Your task to perform on an android device: Go to sound settings Image 0: 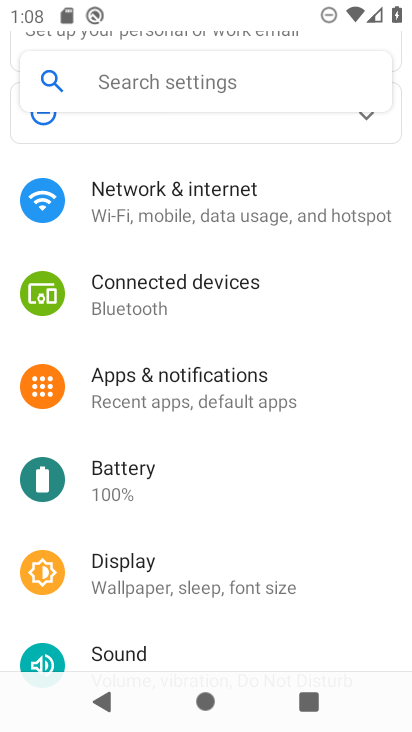
Step 0: click (164, 648)
Your task to perform on an android device: Go to sound settings Image 1: 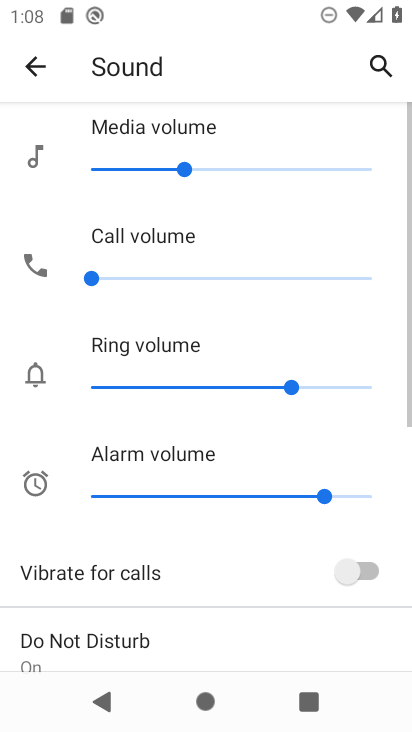
Step 1: task complete